Your task to perform on an android device: Open CNN.com Image 0: 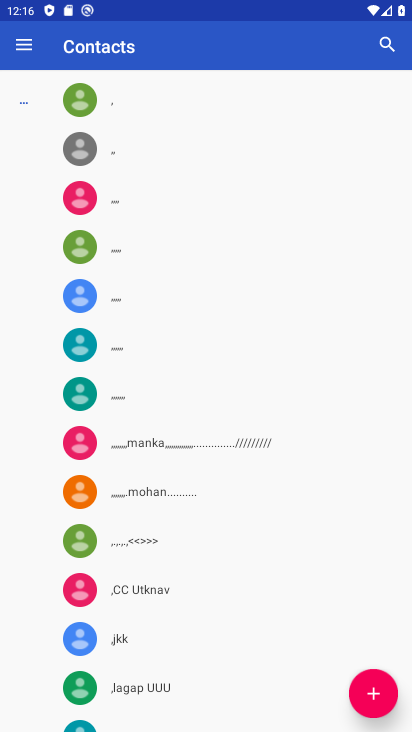
Step 0: press home button
Your task to perform on an android device: Open CNN.com Image 1: 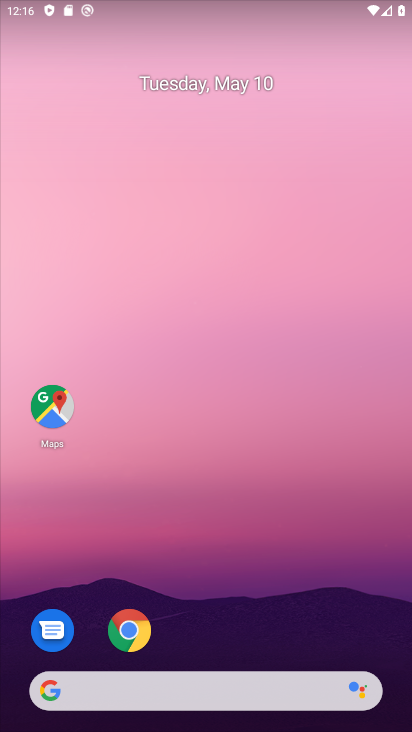
Step 1: drag from (209, 720) to (209, 316)
Your task to perform on an android device: Open CNN.com Image 2: 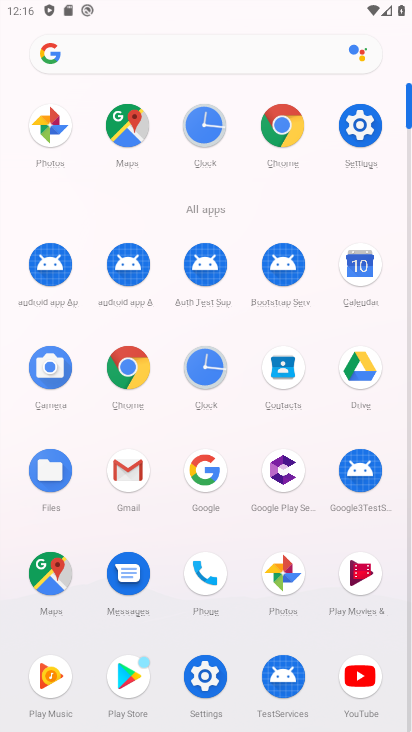
Step 2: click (283, 130)
Your task to perform on an android device: Open CNN.com Image 3: 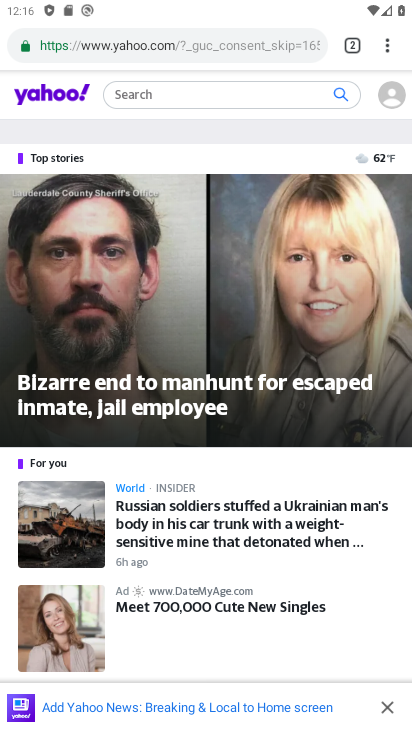
Step 3: click (387, 50)
Your task to perform on an android device: Open CNN.com Image 4: 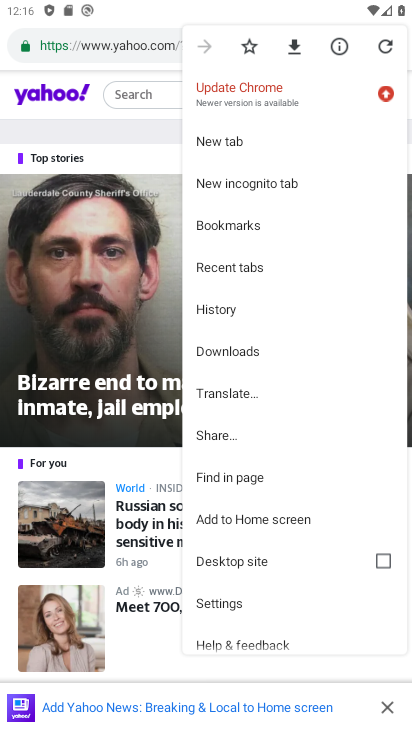
Step 4: click (229, 139)
Your task to perform on an android device: Open CNN.com Image 5: 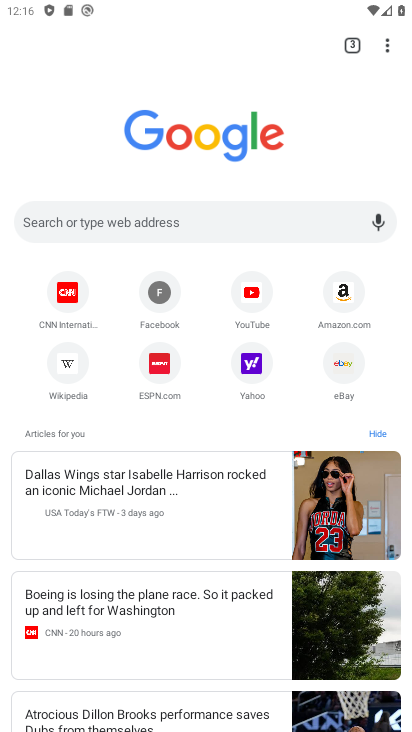
Step 5: click (185, 218)
Your task to perform on an android device: Open CNN.com Image 6: 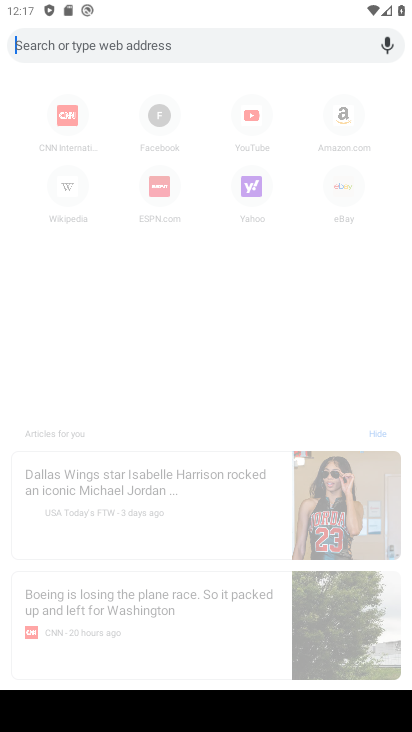
Step 6: type "CNN.com"
Your task to perform on an android device: Open CNN.com Image 7: 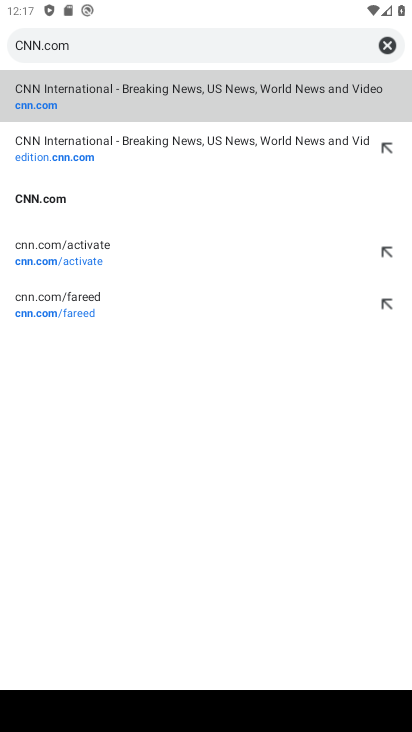
Step 7: click (41, 88)
Your task to perform on an android device: Open CNN.com Image 8: 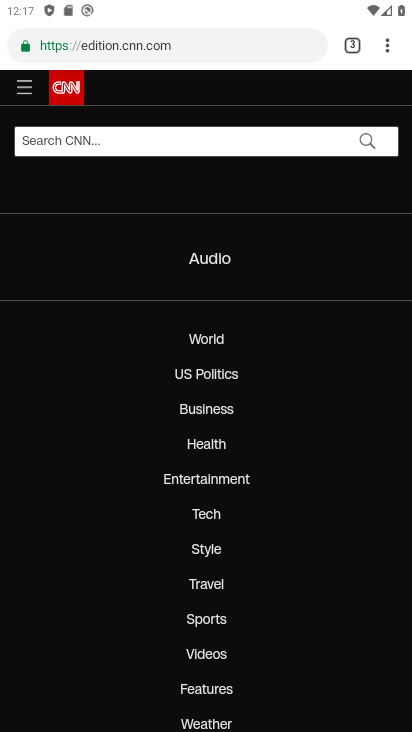
Step 8: task complete